Your task to perform on an android device: Do I have any events today? Image 0: 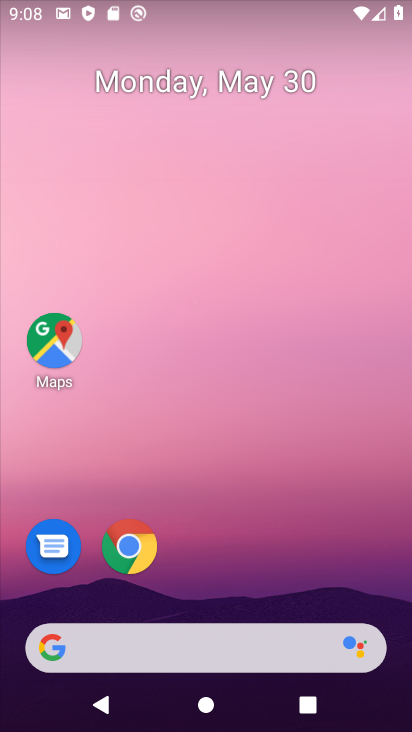
Step 0: drag from (355, 578) to (310, 150)
Your task to perform on an android device: Do I have any events today? Image 1: 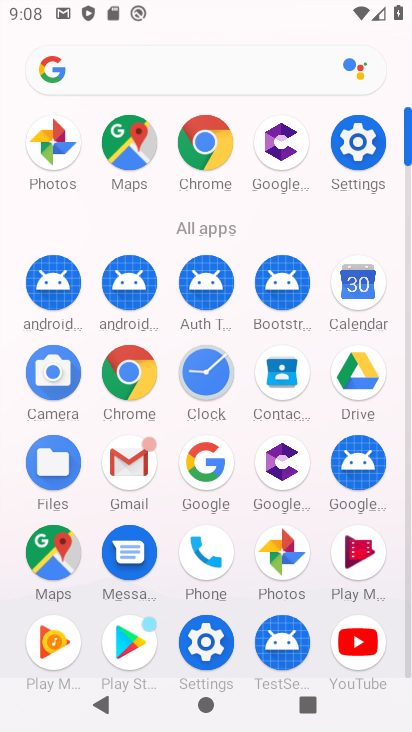
Step 1: click (375, 292)
Your task to perform on an android device: Do I have any events today? Image 2: 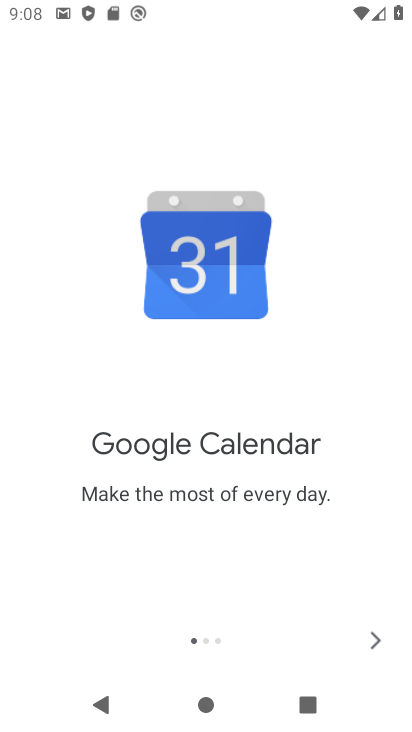
Step 2: click (373, 637)
Your task to perform on an android device: Do I have any events today? Image 3: 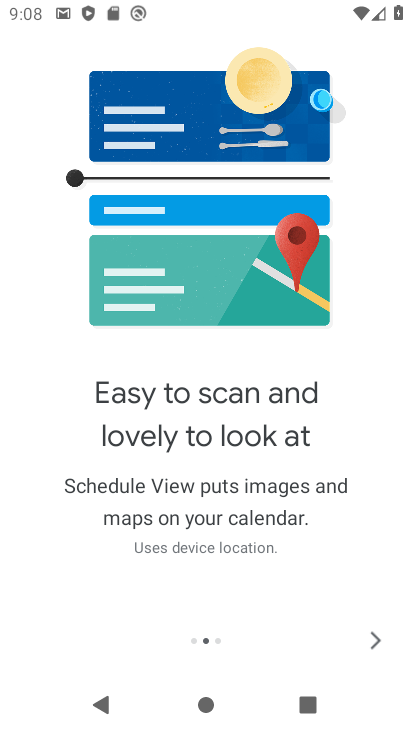
Step 3: click (373, 637)
Your task to perform on an android device: Do I have any events today? Image 4: 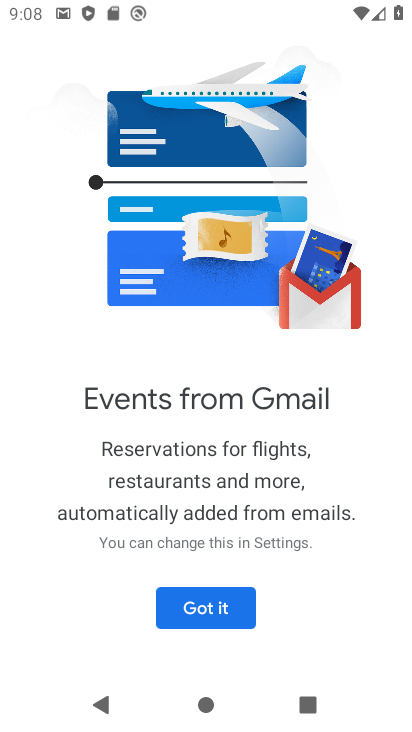
Step 4: click (205, 617)
Your task to perform on an android device: Do I have any events today? Image 5: 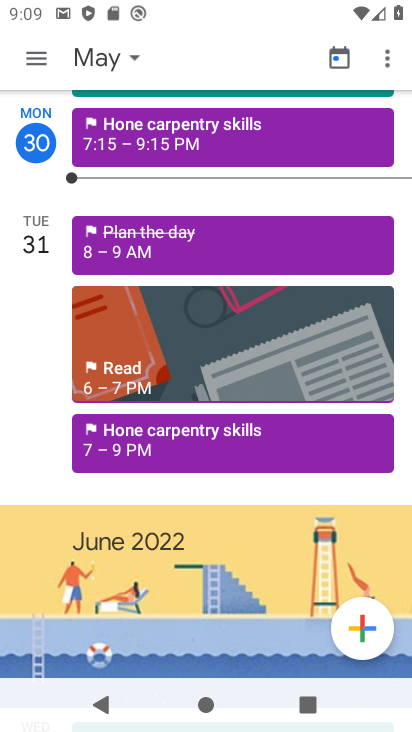
Step 5: task complete